Your task to perform on an android device: turn on the 12-hour format for clock Image 0: 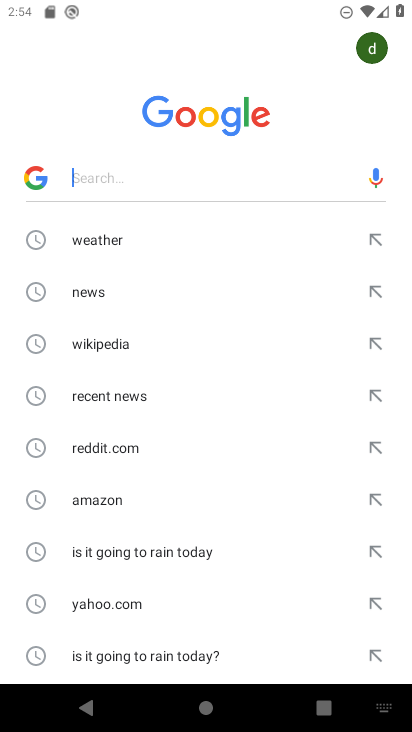
Step 0: press home button
Your task to perform on an android device: turn on the 12-hour format for clock Image 1: 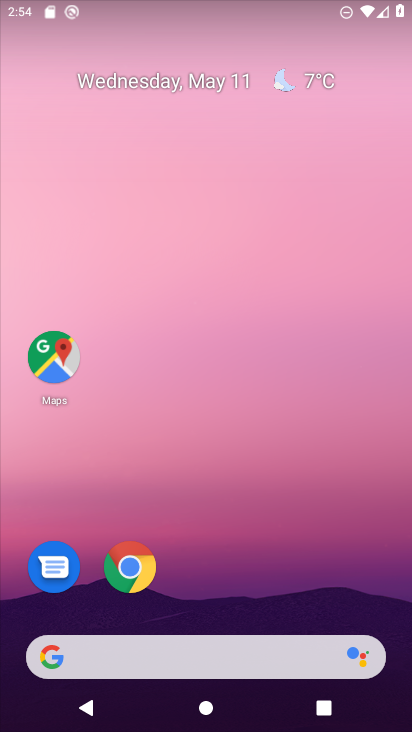
Step 1: drag from (263, 598) to (209, 194)
Your task to perform on an android device: turn on the 12-hour format for clock Image 2: 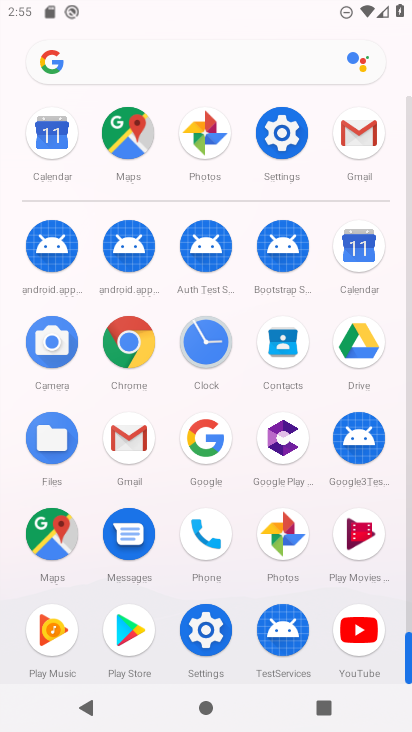
Step 2: click (200, 340)
Your task to perform on an android device: turn on the 12-hour format for clock Image 3: 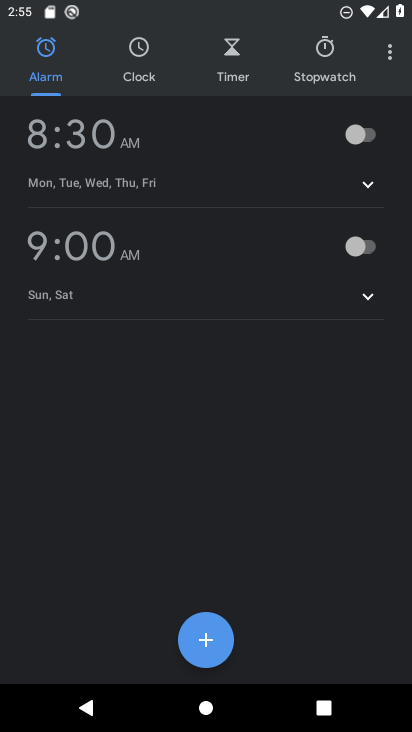
Step 3: click (394, 46)
Your task to perform on an android device: turn on the 12-hour format for clock Image 4: 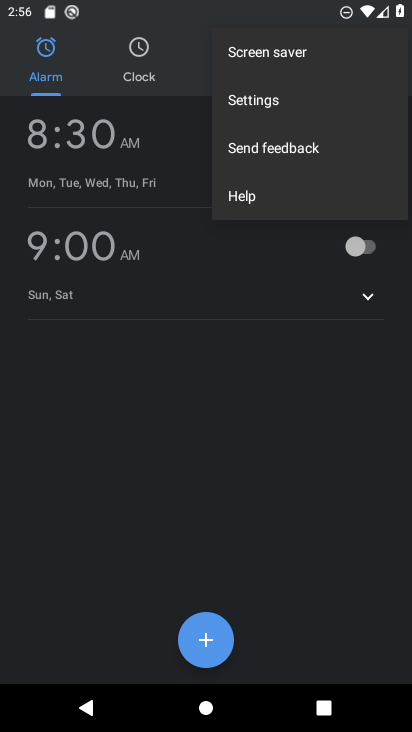
Step 4: click (268, 104)
Your task to perform on an android device: turn on the 12-hour format for clock Image 5: 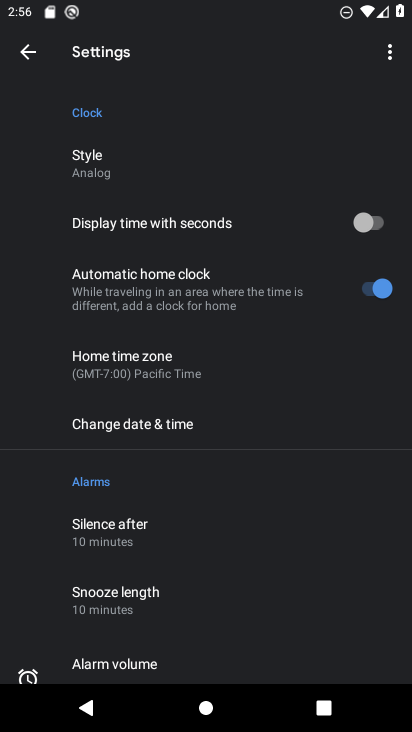
Step 5: click (156, 419)
Your task to perform on an android device: turn on the 12-hour format for clock Image 6: 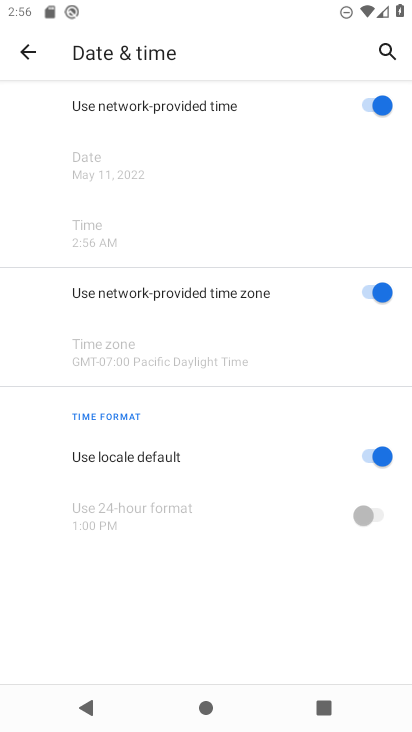
Step 6: task complete